Your task to perform on an android device: turn on the 12-hour format for clock Image 0: 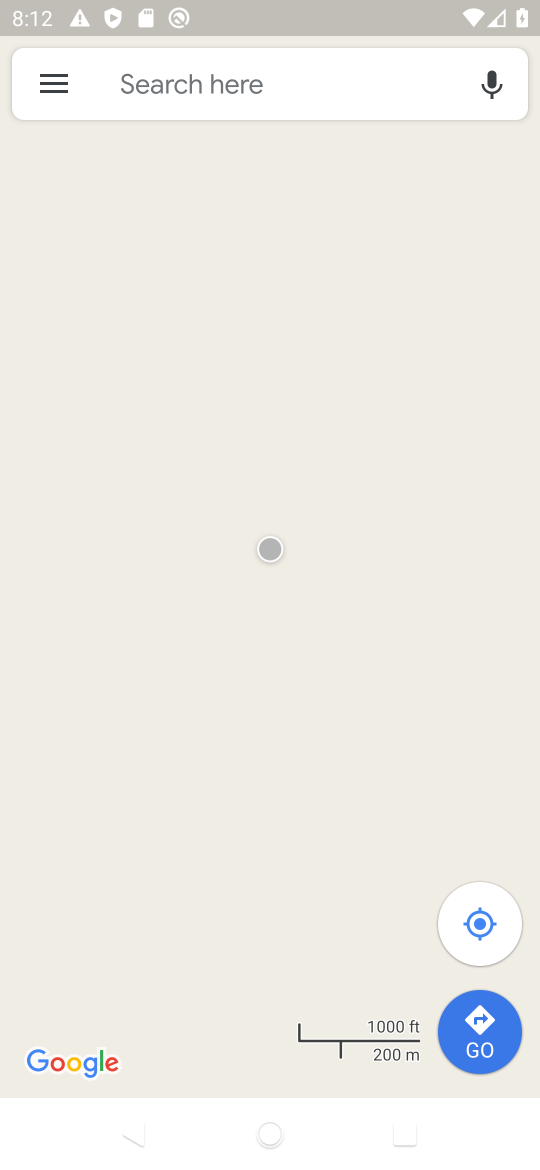
Step 0: press home button
Your task to perform on an android device: turn on the 12-hour format for clock Image 1: 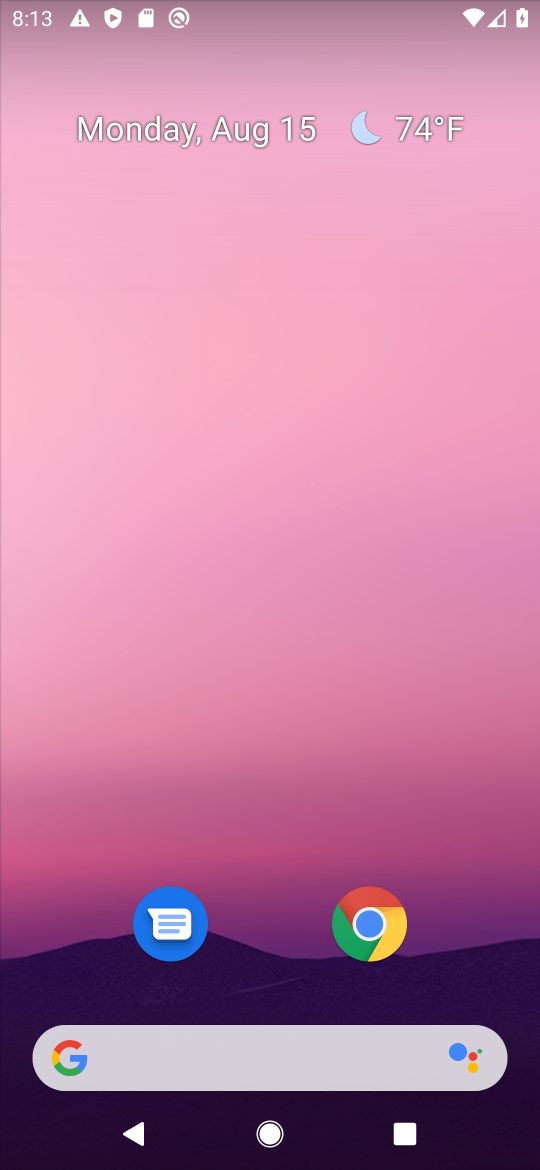
Step 1: drag from (489, 967) to (412, 221)
Your task to perform on an android device: turn on the 12-hour format for clock Image 2: 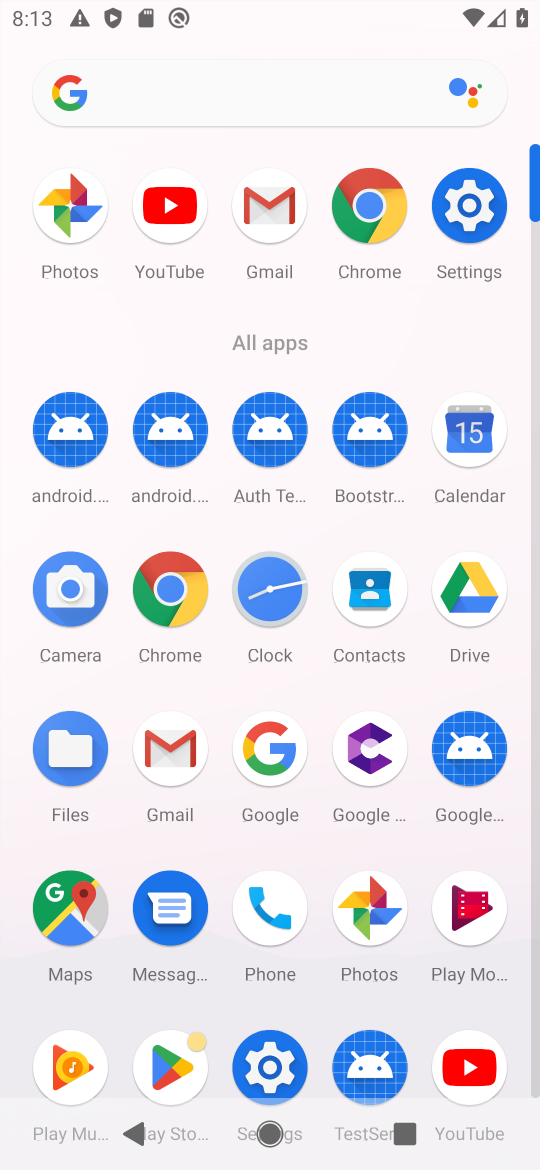
Step 2: click (268, 589)
Your task to perform on an android device: turn on the 12-hour format for clock Image 3: 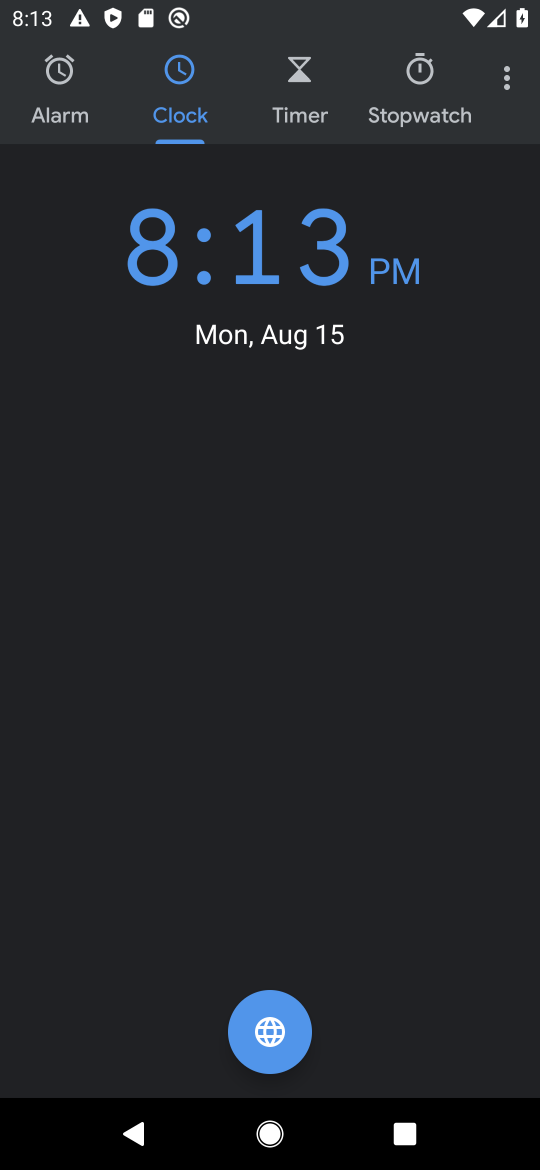
Step 3: click (502, 89)
Your task to perform on an android device: turn on the 12-hour format for clock Image 4: 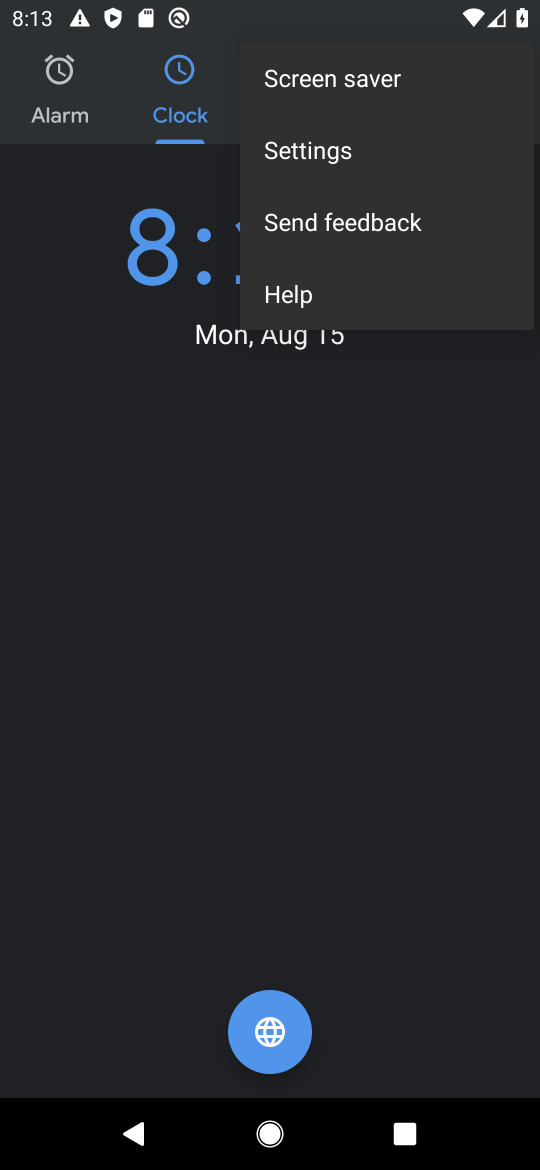
Step 4: click (285, 160)
Your task to perform on an android device: turn on the 12-hour format for clock Image 5: 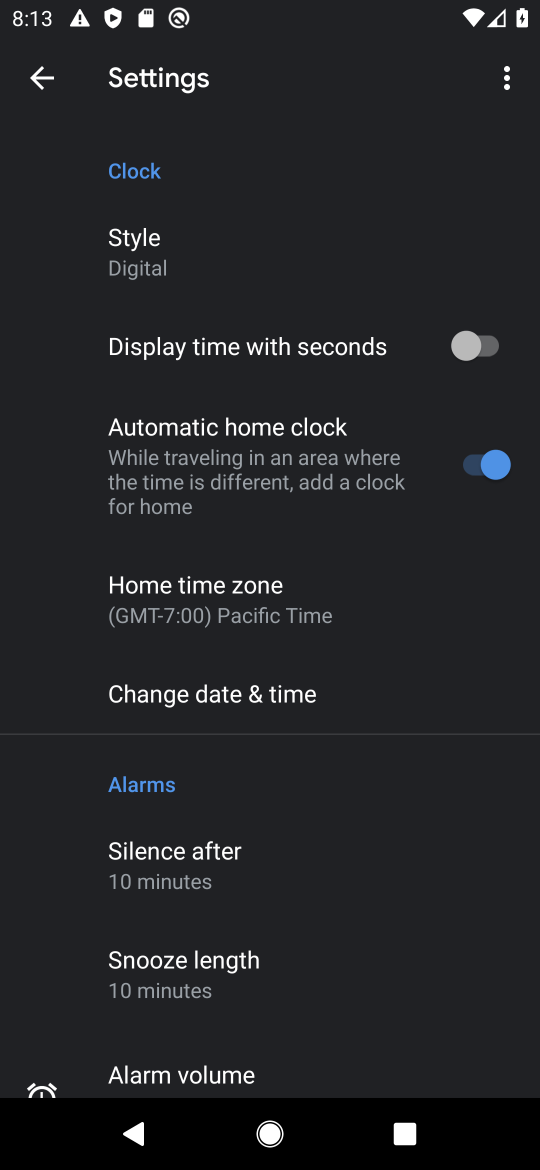
Step 5: click (276, 695)
Your task to perform on an android device: turn on the 12-hour format for clock Image 6: 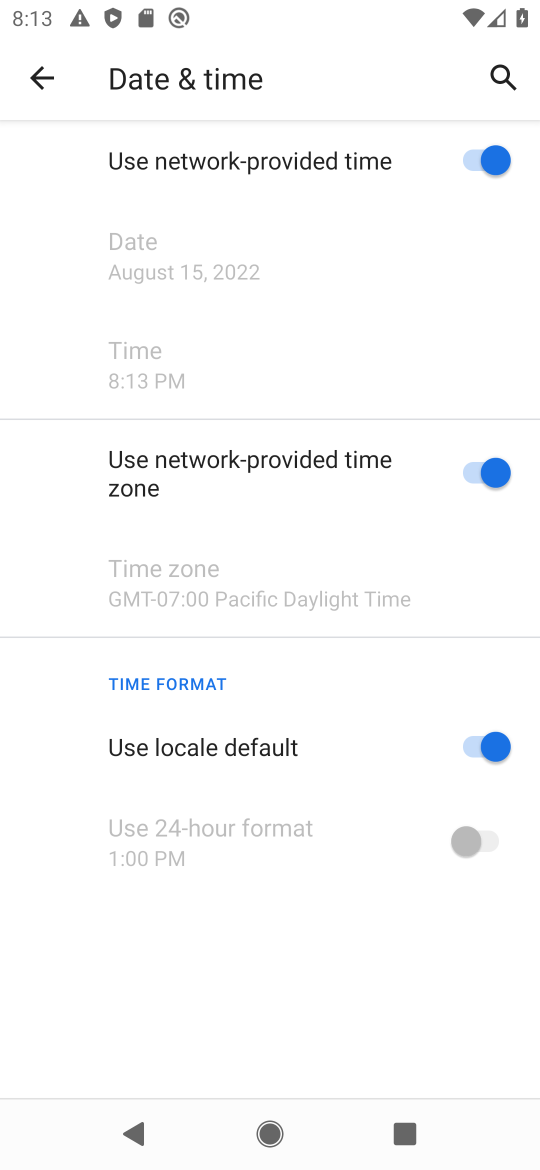
Step 6: task complete